Your task to perform on an android device: Open the phone app and click the voicemail tab. Image 0: 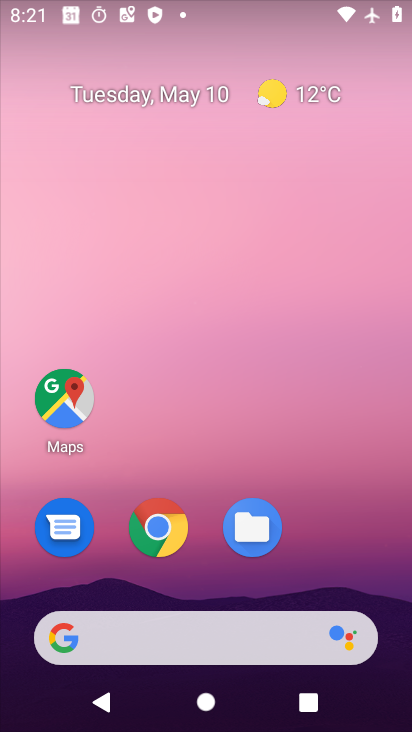
Step 0: drag from (342, 535) to (400, 142)
Your task to perform on an android device: Open the phone app and click the voicemail tab. Image 1: 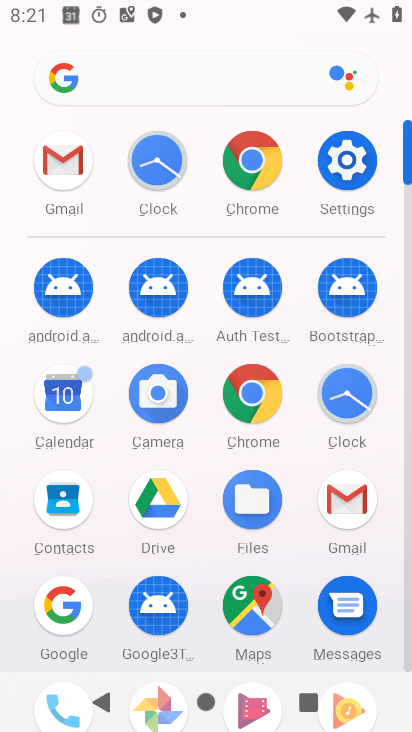
Step 1: drag from (325, 590) to (364, 241)
Your task to perform on an android device: Open the phone app and click the voicemail tab. Image 2: 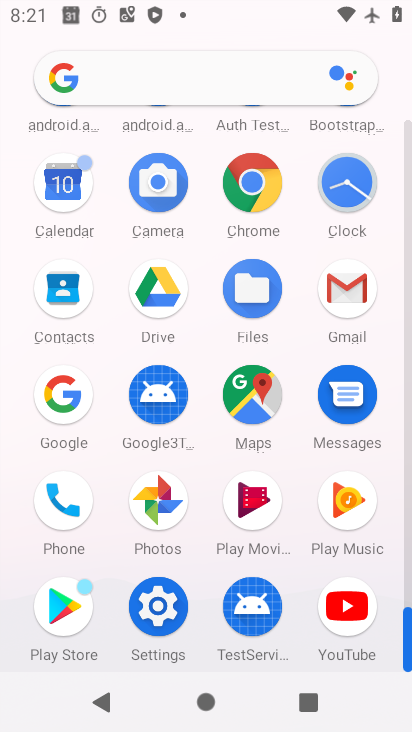
Step 2: click (77, 497)
Your task to perform on an android device: Open the phone app and click the voicemail tab. Image 3: 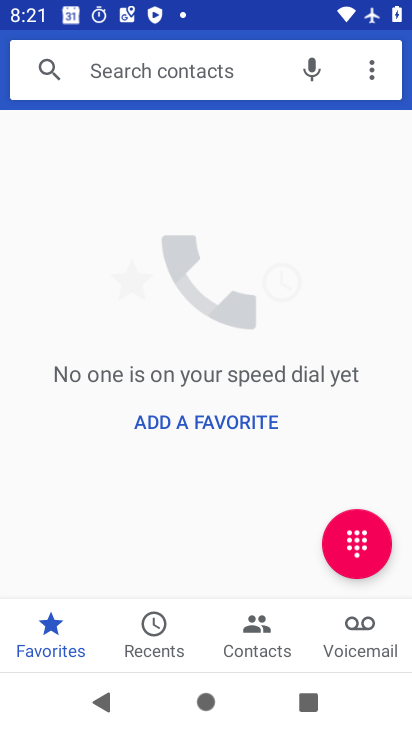
Step 3: click (360, 651)
Your task to perform on an android device: Open the phone app and click the voicemail tab. Image 4: 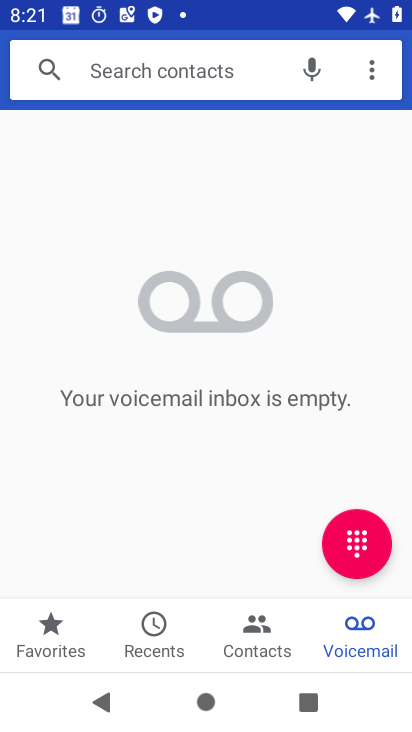
Step 4: task complete